Your task to perform on an android device: Open the Play Movies app and select the watchlist tab. Image 0: 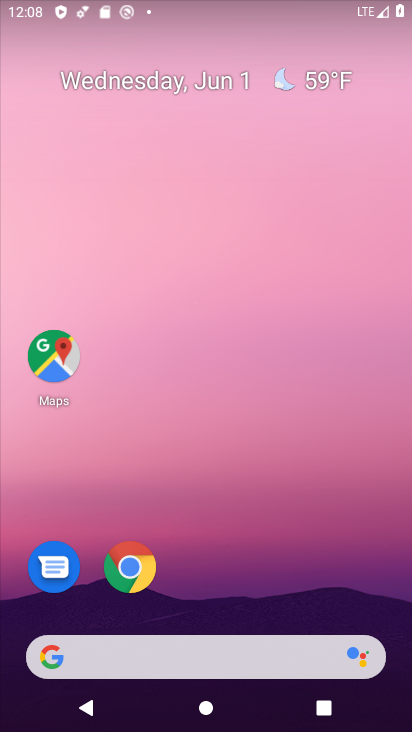
Step 0: drag from (216, 601) to (260, 144)
Your task to perform on an android device: Open the Play Movies app and select the watchlist tab. Image 1: 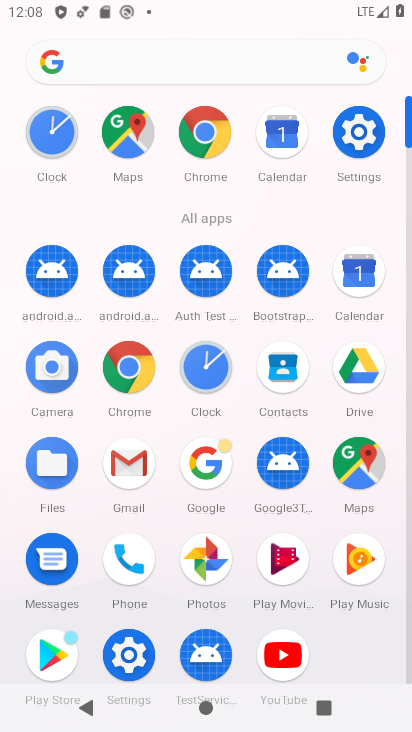
Step 1: click (299, 559)
Your task to perform on an android device: Open the Play Movies app and select the watchlist tab. Image 2: 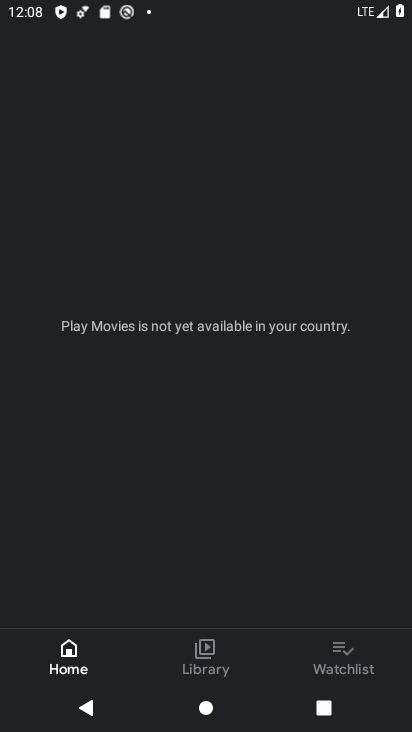
Step 2: click (366, 647)
Your task to perform on an android device: Open the Play Movies app and select the watchlist tab. Image 3: 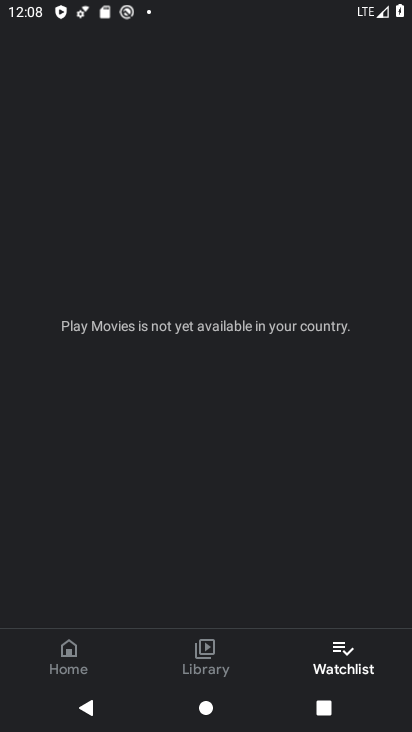
Step 3: task complete